Your task to perform on an android device: turn pop-ups off in chrome Image 0: 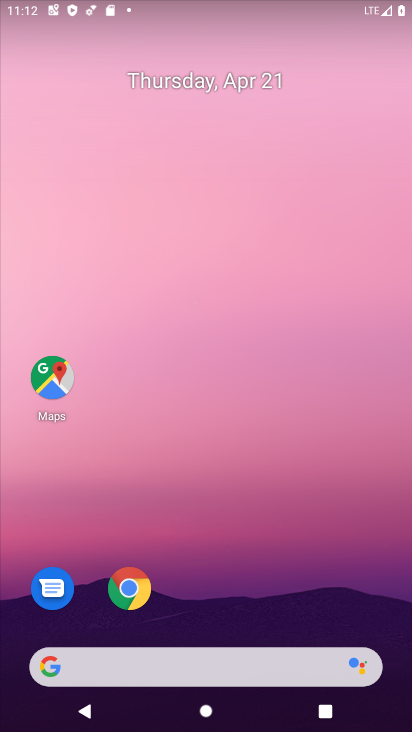
Step 0: drag from (236, 684) to (332, 126)
Your task to perform on an android device: turn pop-ups off in chrome Image 1: 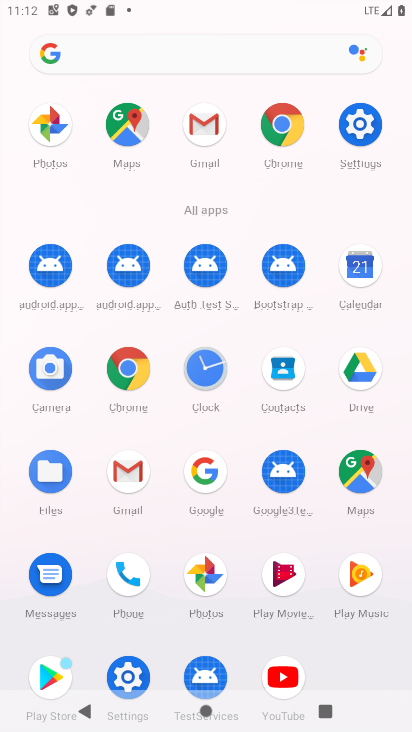
Step 1: click (271, 126)
Your task to perform on an android device: turn pop-ups off in chrome Image 2: 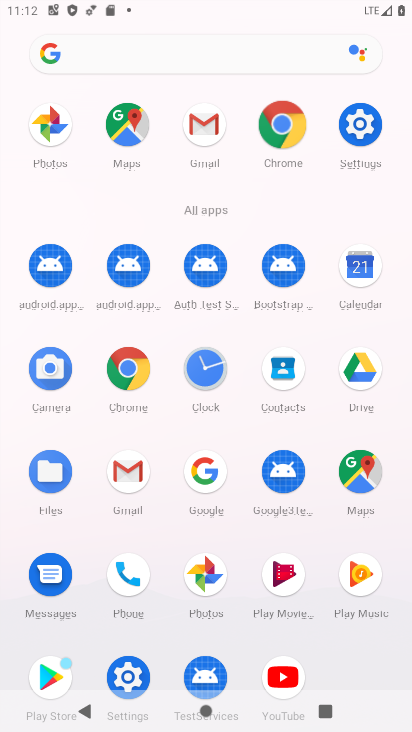
Step 2: click (281, 123)
Your task to perform on an android device: turn pop-ups off in chrome Image 3: 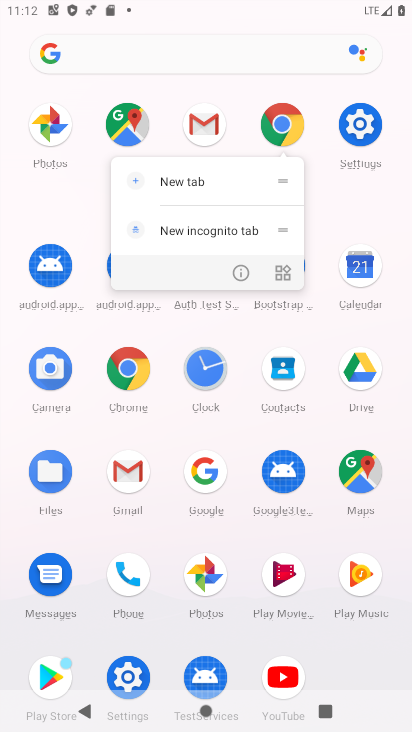
Step 3: click (283, 128)
Your task to perform on an android device: turn pop-ups off in chrome Image 4: 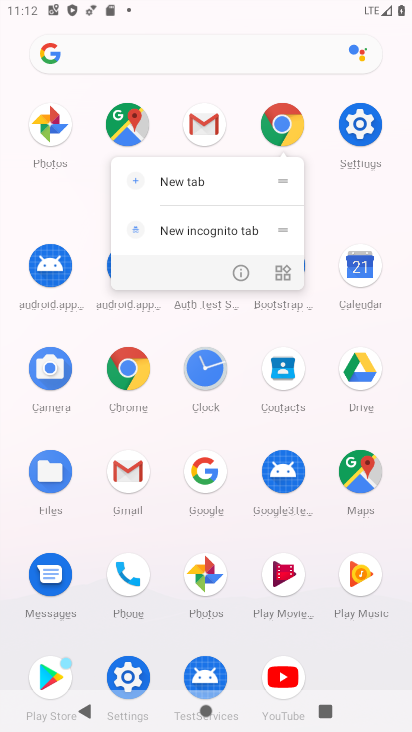
Step 4: click (283, 128)
Your task to perform on an android device: turn pop-ups off in chrome Image 5: 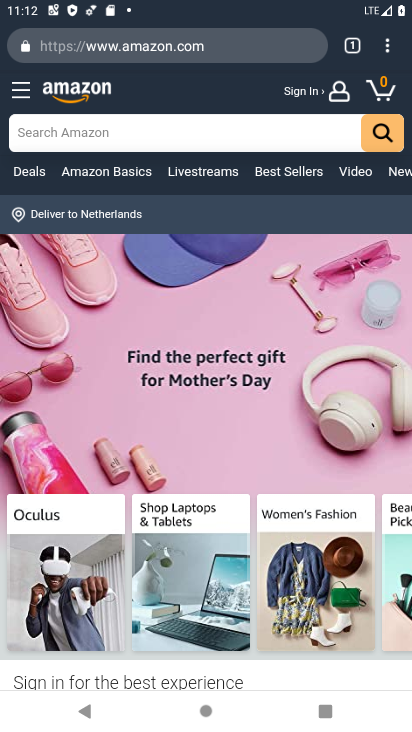
Step 5: drag from (285, 126) to (385, 53)
Your task to perform on an android device: turn pop-ups off in chrome Image 6: 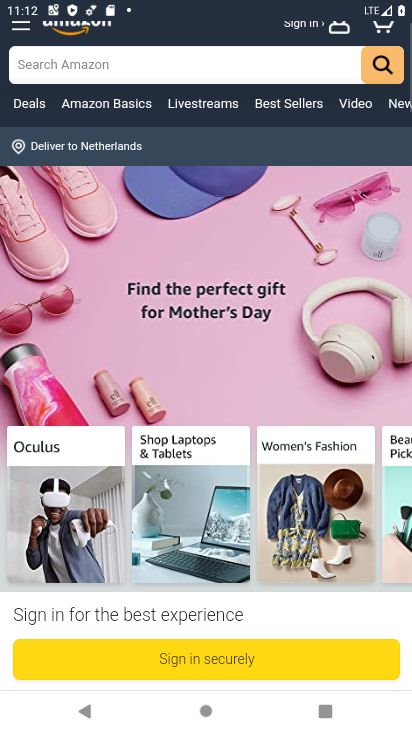
Step 6: click (385, 53)
Your task to perform on an android device: turn pop-ups off in chrome Image 7: 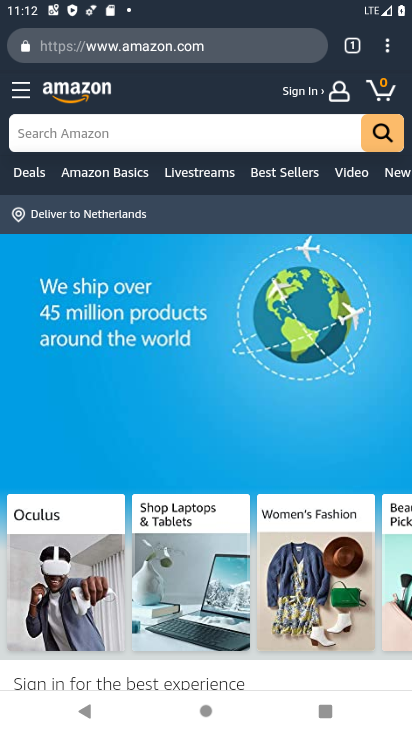
Step 7: click (386, 50)
Your task to perform on an android device: turn pop-ups off in chrome Image 8: 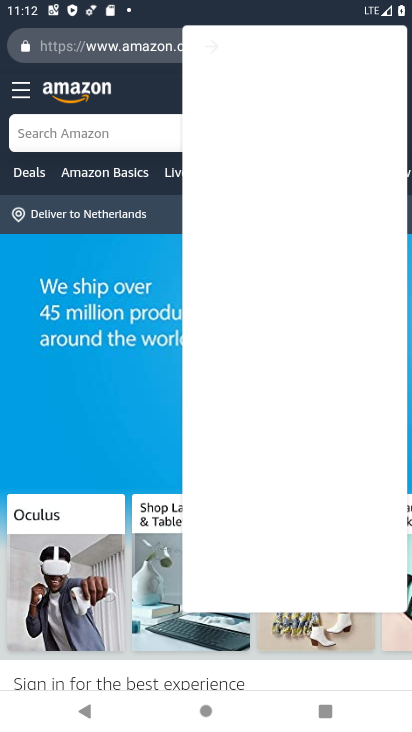
Step 8: click (390, 50)
Your task to perform on an android device: turn pop-ups off in chrome Image 9: 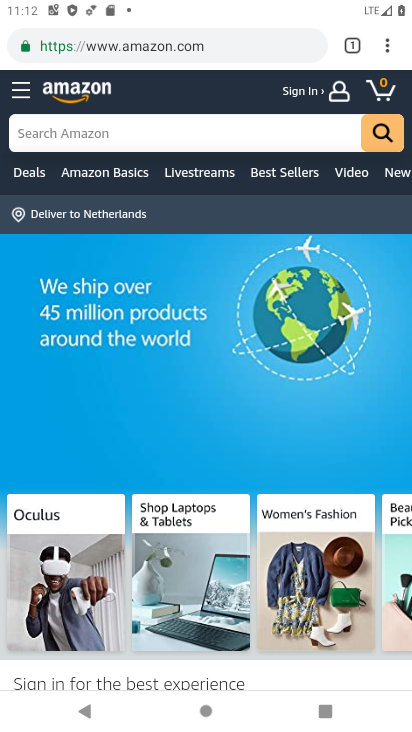
Step 9: click (383, 53)
Your task to perform on an android device: turn pop-ups off in chrome Image 10: 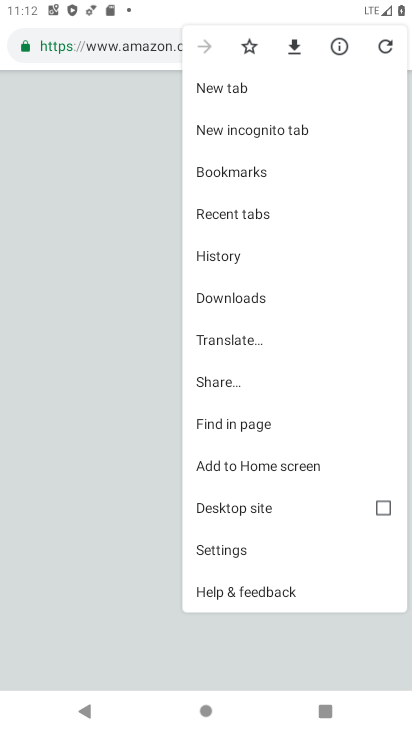
Step 10: click (218, 547)
Your task to perform on an android device: turn pop-ups off in chrome Image 11: 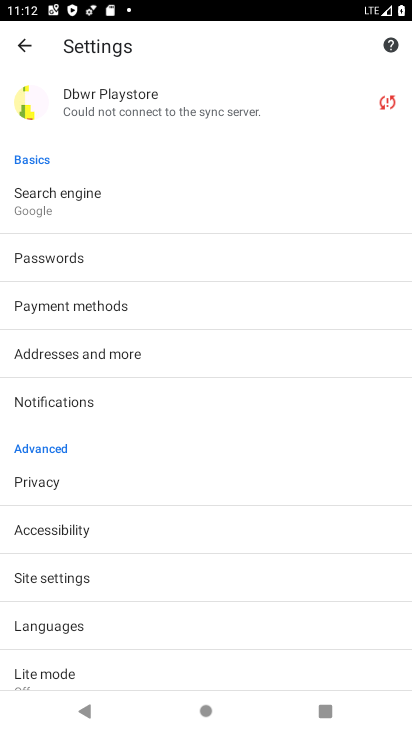
Step 11: drag from (162, 592) to (168, 431)
Your task to perform on an android device: turn pop-ups off in chrome Image 12: 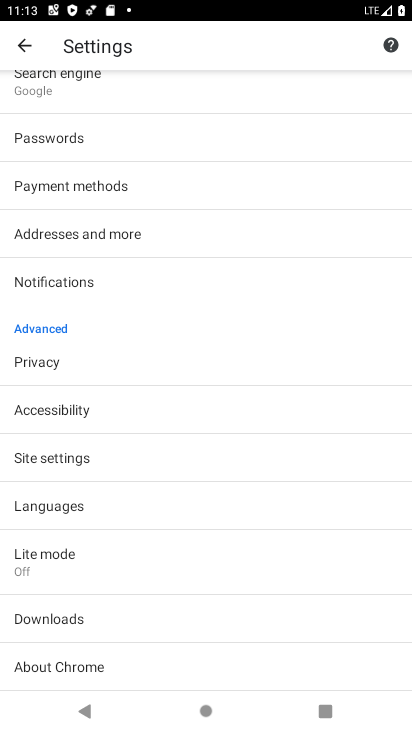
Step 12: drag from (84, 571) to (101, 487)
Your task to perform on an android device: turn pop-ups off in chrome Image 13: 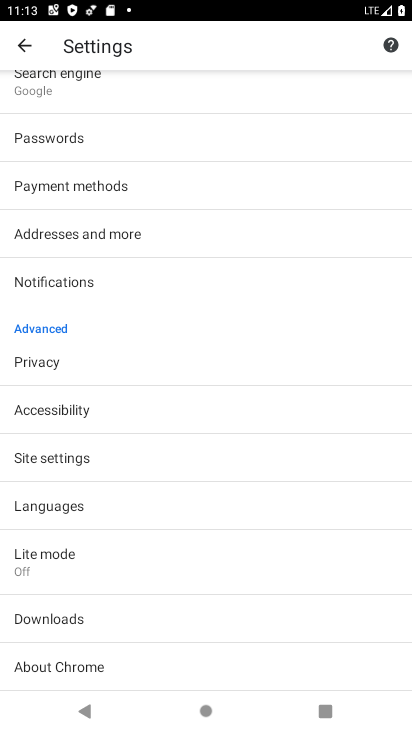
Step 13: click (84, 458)
Your task to perform on an android device: turn pop-ups off in chrome Image 14: 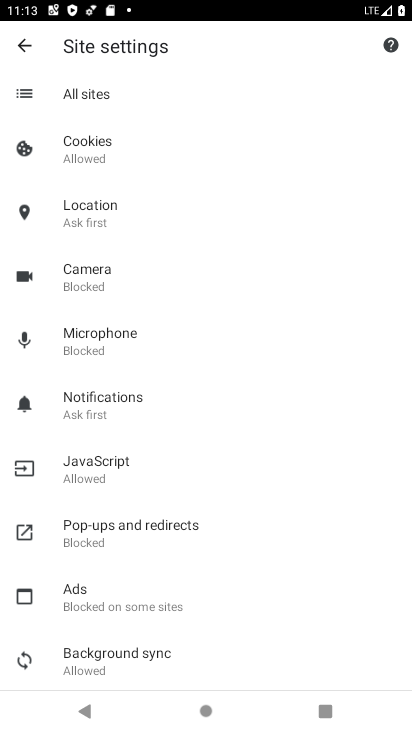
Step 14: click (92, 525)
Your task to perform on an android device: turn pop-ups off in chrome Image 15: 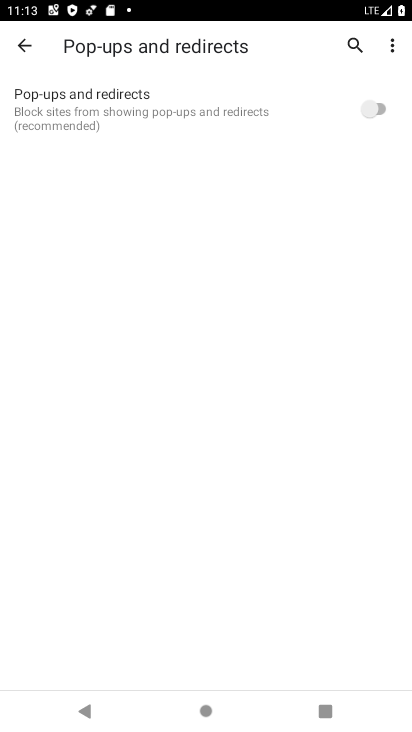
Step 15: click (336, 98)
Your task to perform on an android device: turn pop-ups off in chrome Image 16: 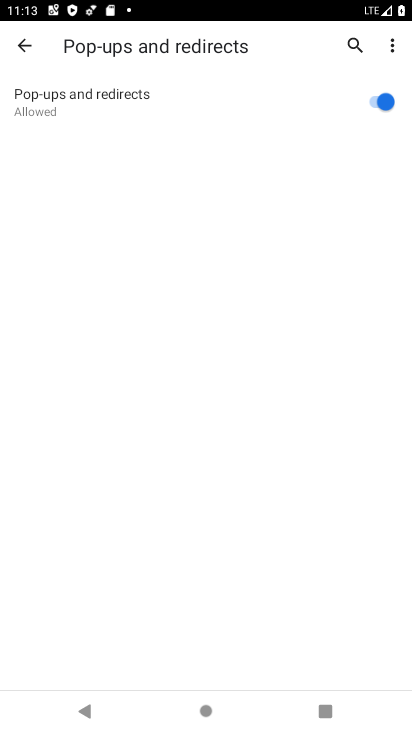
Step 16: click (341, 93)
Your task to perform on an android device: turn pop-ups off in chrome Image 17: 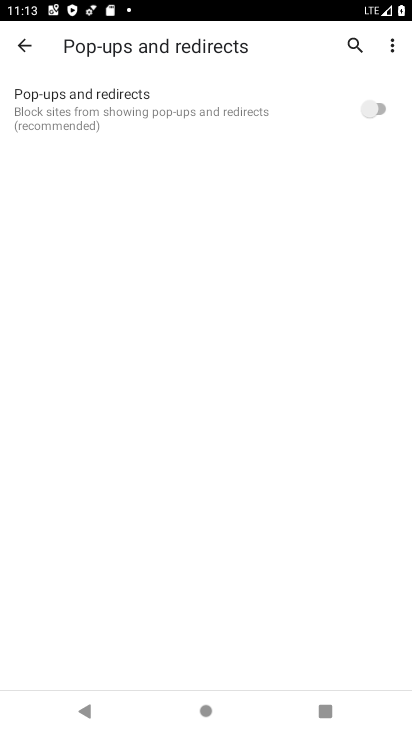
Step 17: task complete